Your task to perform on an android device: Go to Yahoo.com Image 0: 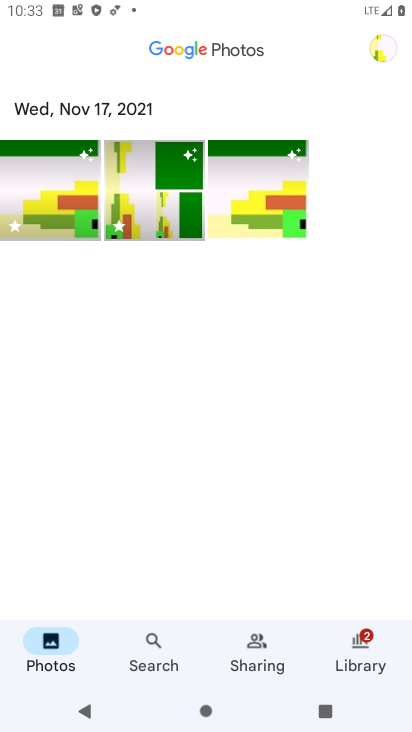
Step 0: press home button
Your task to perform on an android device: Go to Yahoo.com Image 1: 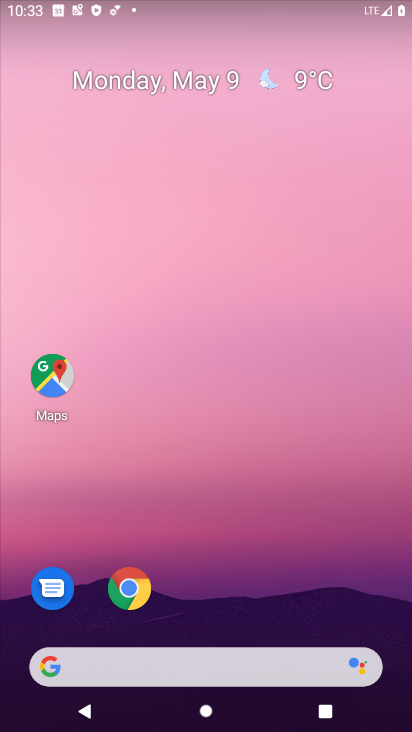
Step 1: drag from (179, 662) to (333, 67)
Your task to perform on an android device: Go to Yahoo.com Image 2: 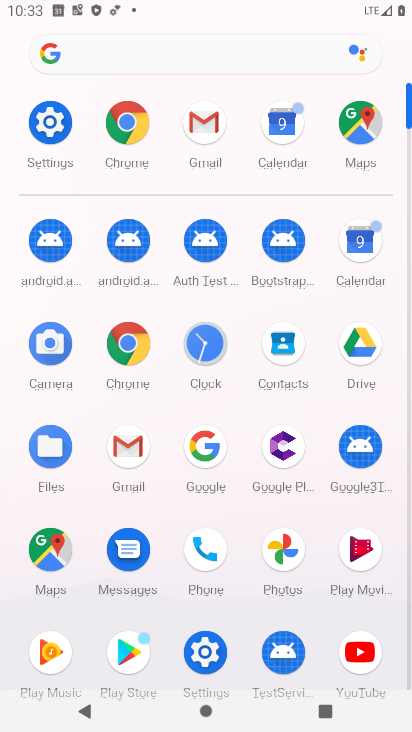
Step 2: click (132, 131)
Your task to perform on an android device: Go to Yahoo.com Image 3: 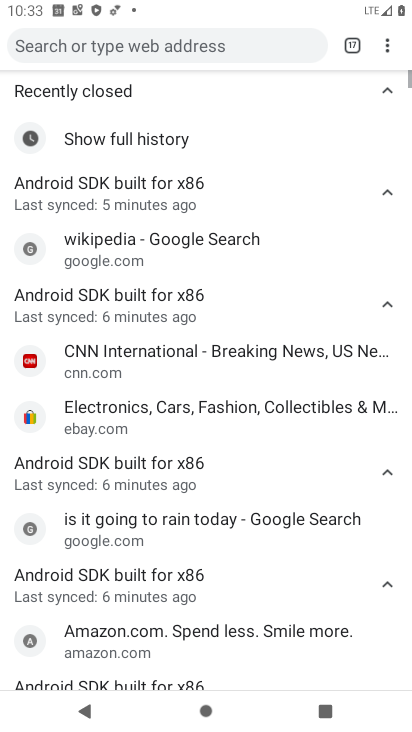
Step 3: drag from (380, 51) to (337, 87)
Your task to perform on an android device: Go to Yahoo.com Image 4: 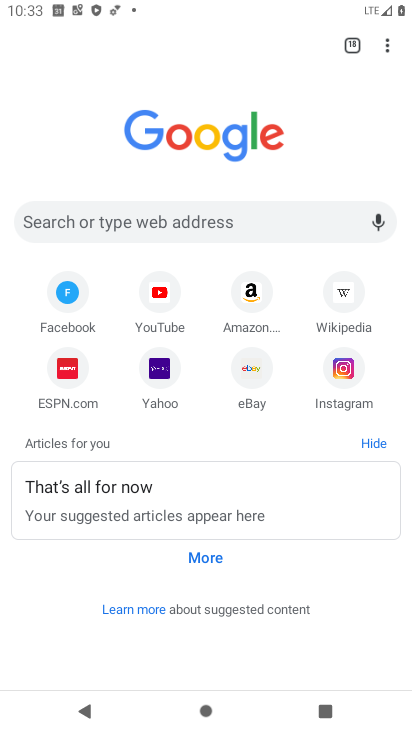
Step 4: click (157, 374)
Your task to perform on an android device: Go to Yahoo.com Image 5: 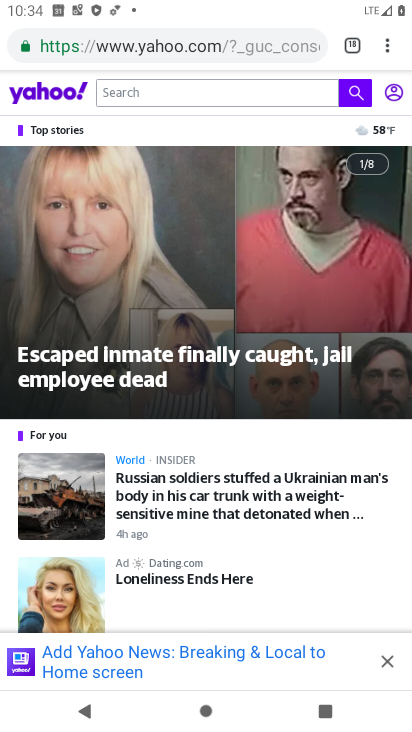
Step 5: task complete